Your task to perform on an android device: What's on my calendar tomorrow? Image 0: 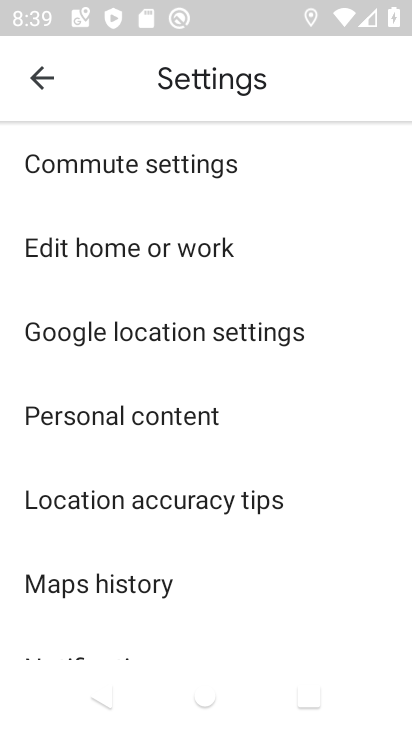
Step 0: press home button
Your task to perform on an android device: What's on my calendar tomorrow? Image 1: 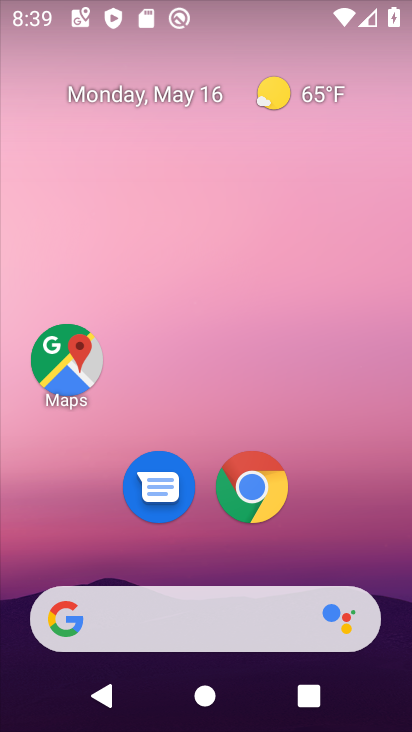
Step 1: drag from (363, 524) to (405, 200)
Your task to perform on an android device: What's on my calendar tomorrow? Image 2: 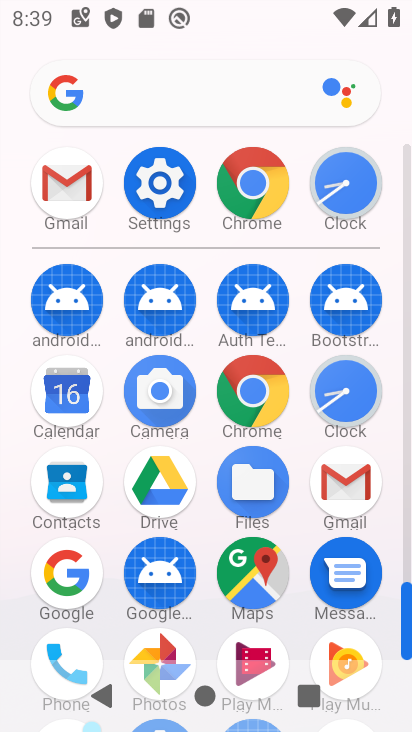
Step 2: click (71, 418)
Your task to perform on an android device: What's on my calendar tomorrow? Image 3: 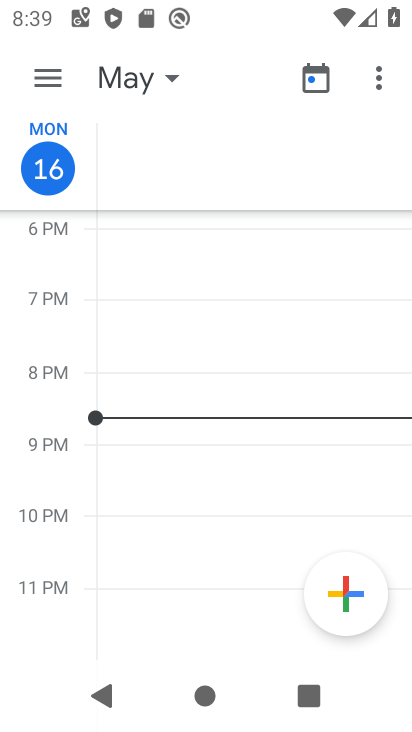
Step 3: click (177, 79)
Your task to perform on an android device: What's on my calendar tomorrow? Image 4: 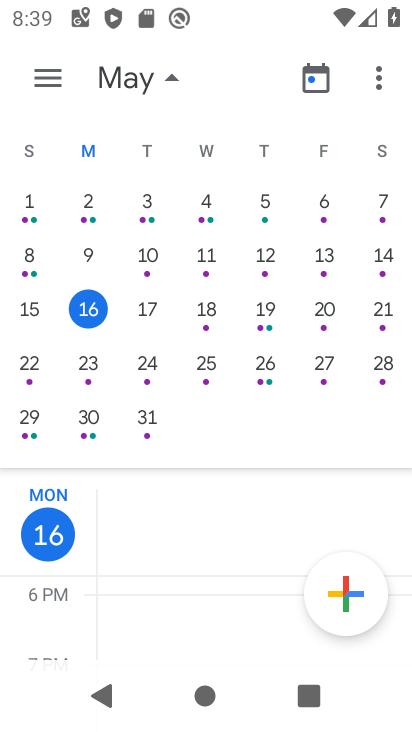
Step 4: click (206, 305)
Your task to perform on an android device: What's on my calendar tomorrow? Image 5: 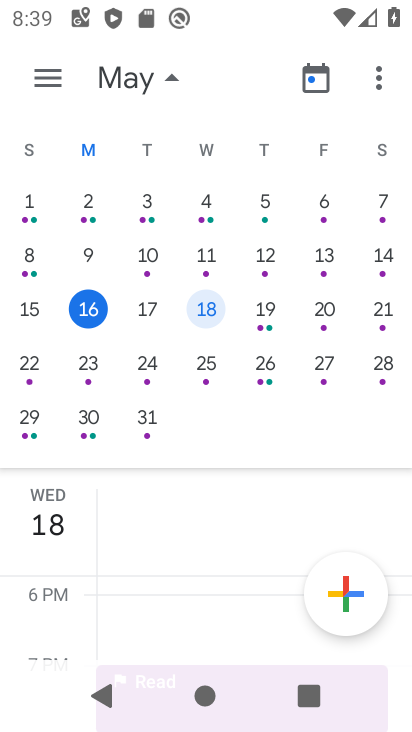
Step 5: task complete